Your task to perform on an android device: When is my next meeting? Image 0: 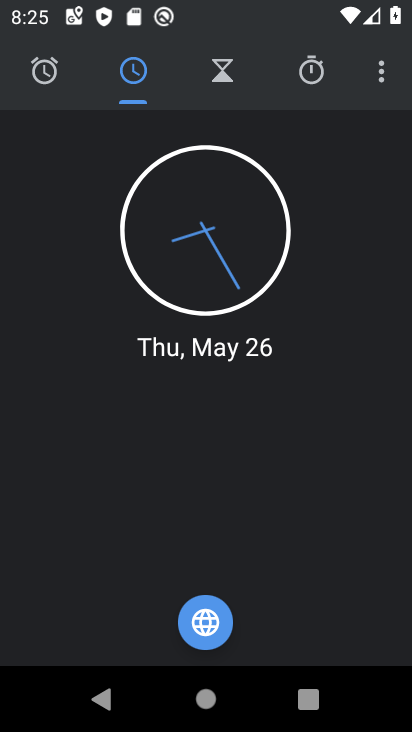
Step 0: press home button
Your task to perform on an android device: When is my next meeting? Image 1: 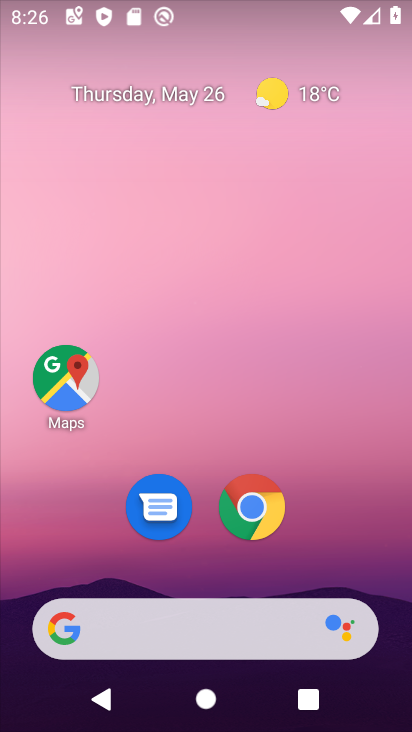
Step 1: drag from (274, 671) to (154, 167)
Your task to perform on an android device: When is my next meeting? Image 2: 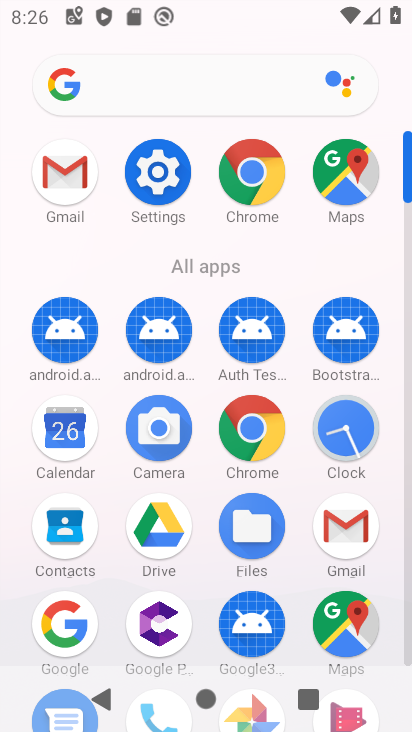
Step 2: click (67, 445)
Your task to perform on an android device: When is my next meeting? Image 3: 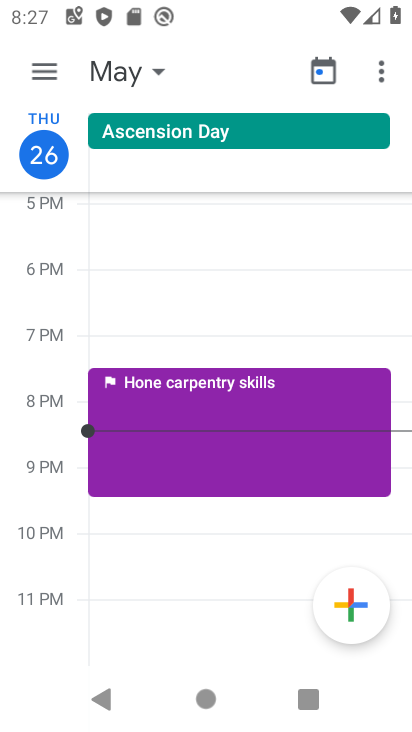
Step 3: click (48, 83)
Your task to perform on an android device: When is my next meeting? Image 4: 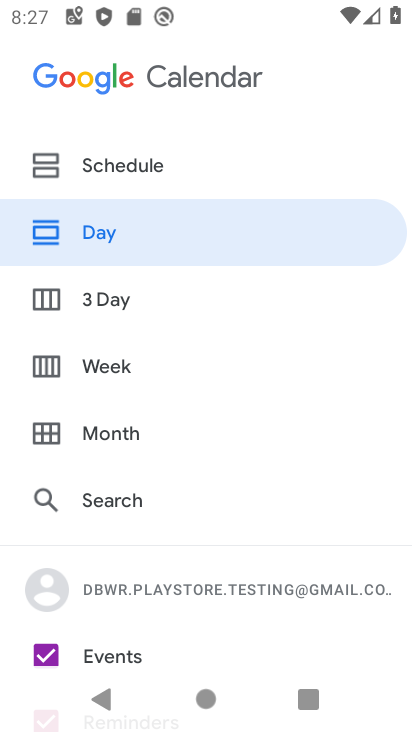
Step 4: click (115, 171)
Your task to perform on an android device: When is my next meeting? Image 5: 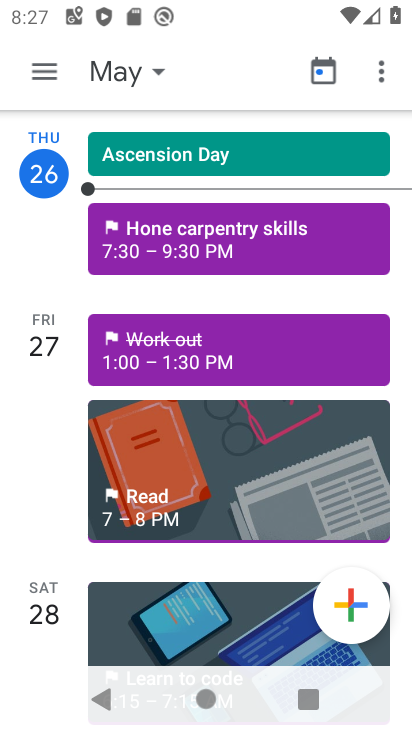
Step 5: task complete